Your task to perform on an android device: Go to wifi settings Image 0: 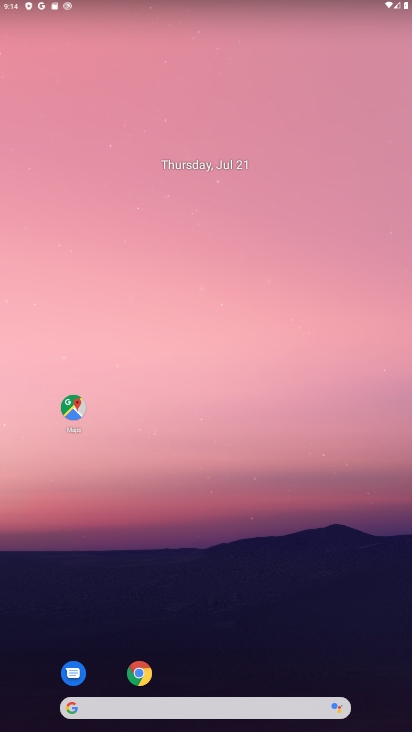
Step 0: press home button
Your task to perform on an android device: Go to wifi settings Image 1: 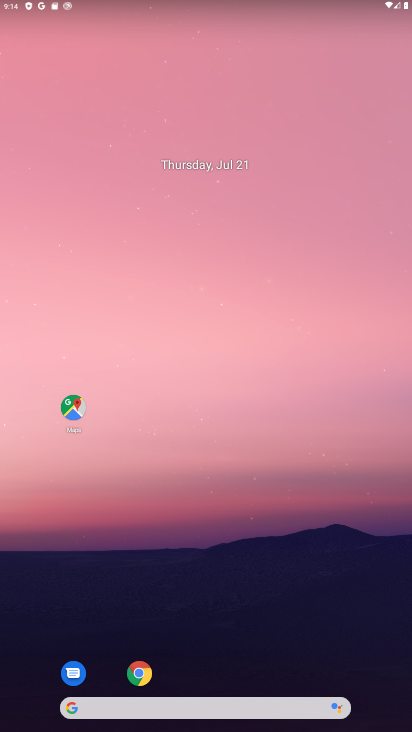
Step 1: drag from (203, 673) to (256, 136)
Your task to perform on an android device: Go to wifi settings Image 2: 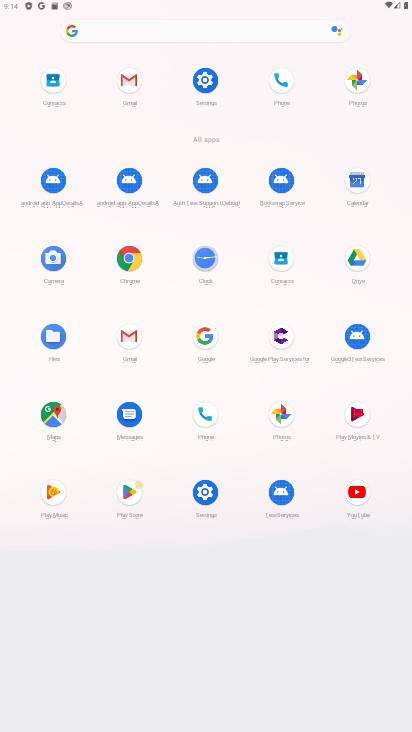
Step 2: click (202, 487)
Your task to perform on an android device: Go to wifi settings Image 3: 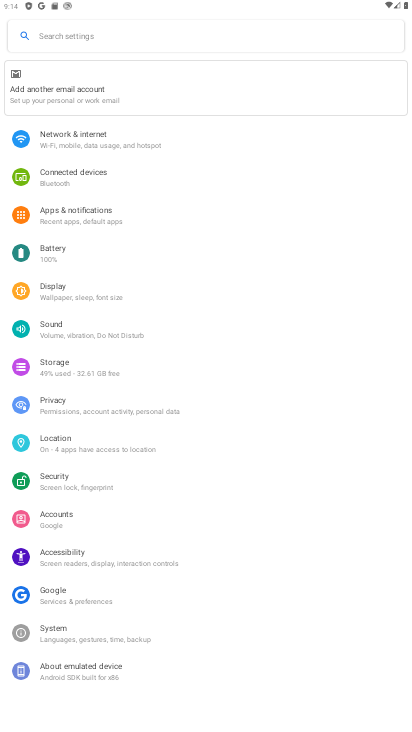
Step 3: click (114, 133)
Your task to perform on an android device: Go to wifi settings Image 4: 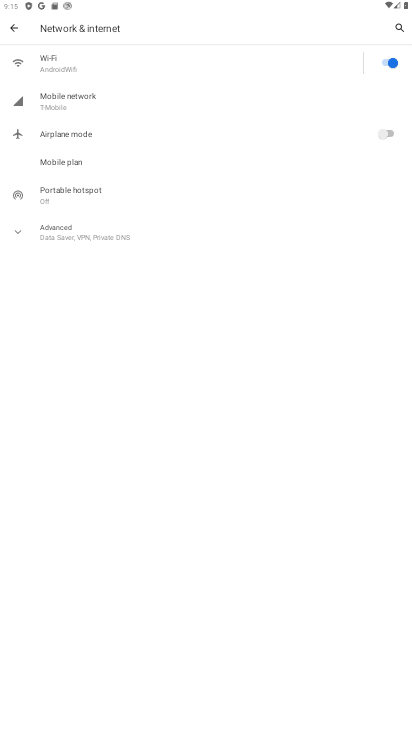
Step 4: click (93, 60)
Your task to perform on an android device: Go to wifi settings Image 5: 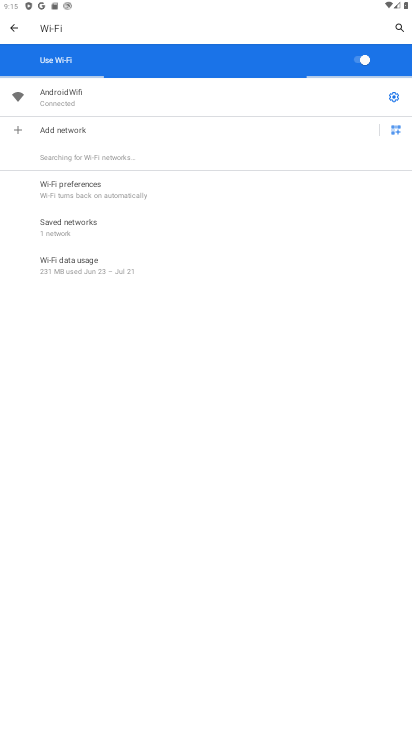
Step 5: task complete